Your task to perform on an android device: delete a single message in the gmail app Image 0: 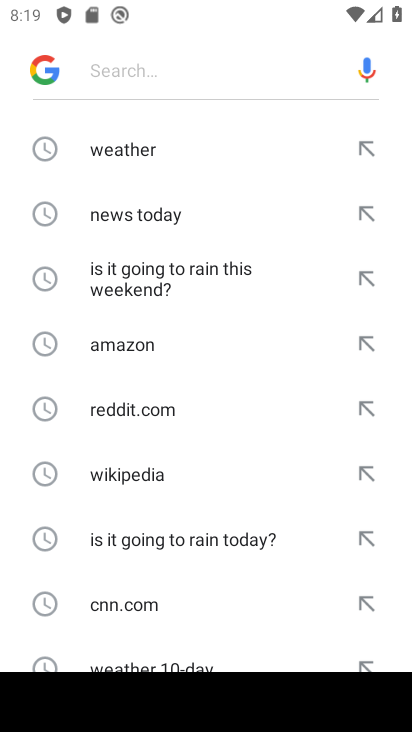
Step 0: press home button
Your task to perform on an android device: delete a single message in the gmail app Image 1: 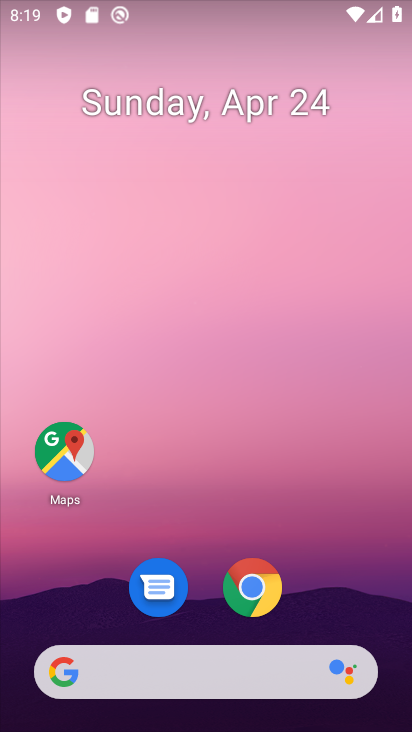
Step 1: drag from (254, 531) to (294, 69)
Your task to perform on an android device: delete a single message in the gmail app Image 2: 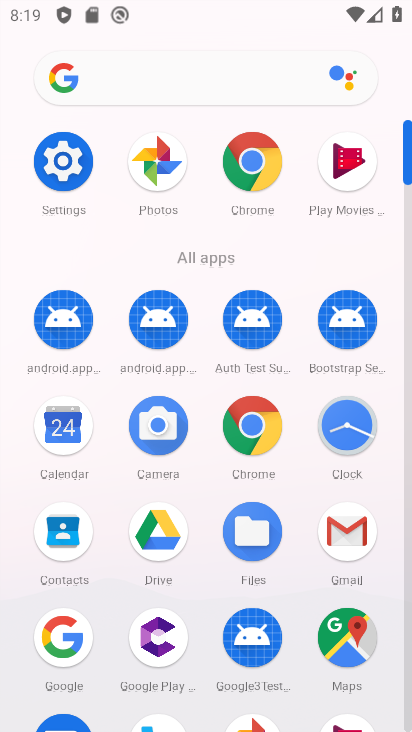
Step 2: click (340, 534)
Your task to perform on an android device: delete a single message in the gmail app Image 3: 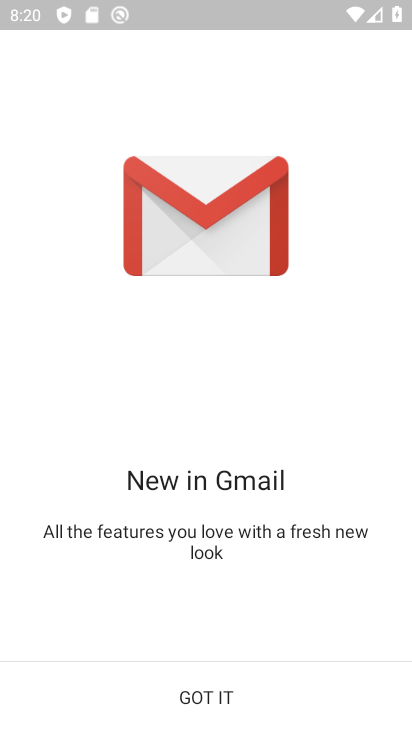
Step 3: click (221, 720)
Your task to perform on an android device: delete a single message in the gmail app Image 4: 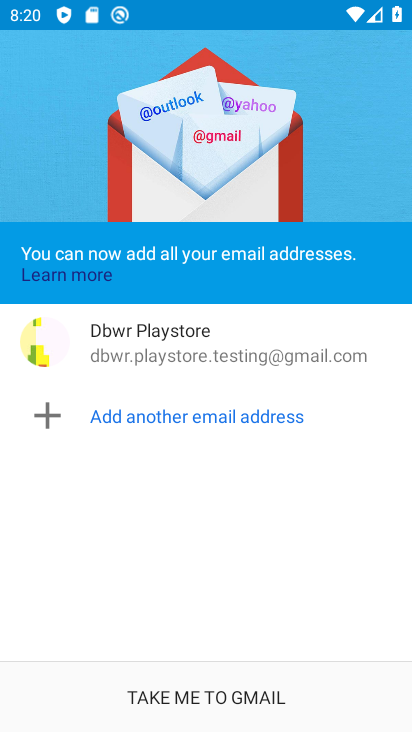
Step 4: click (214, 695)
Your task to perform on an android device: delete a single message in the gmail app Image 5: 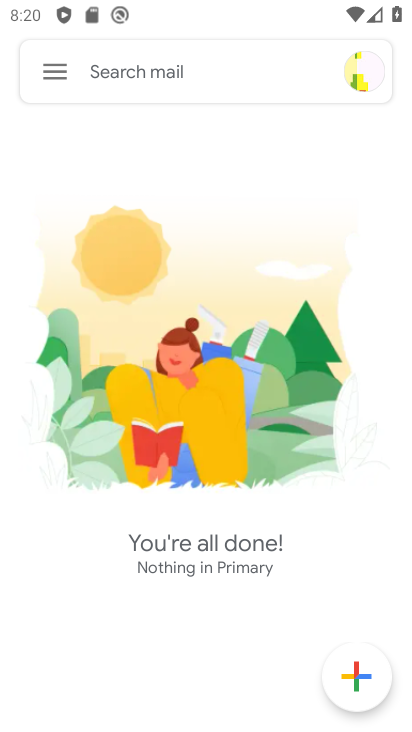
Step 5: click (49, 68)
Your task to perform on an android device: delete a single message in the gmail app Image 6: 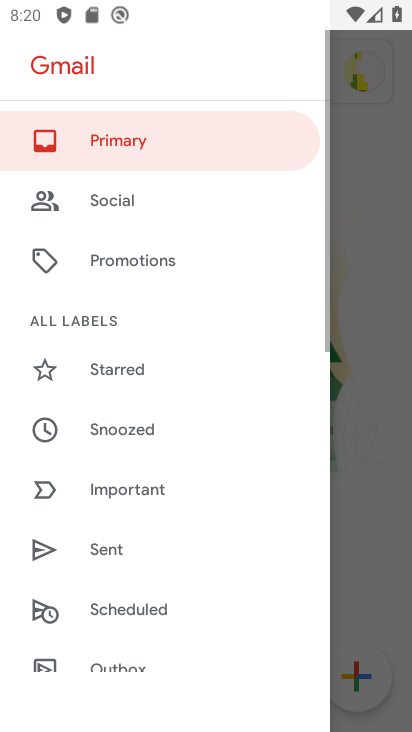
Step 6: drag from (131, 602) to (255, 69)
Your task to perform on an android device: delete a single message in the gmail app Image 7: 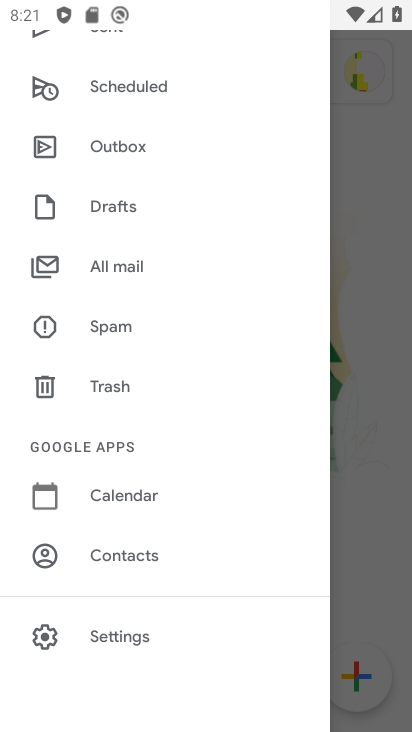
Step 7: click (157, 267)
Your task to perform on an android device: delete a single message in the gmail app Image 8: 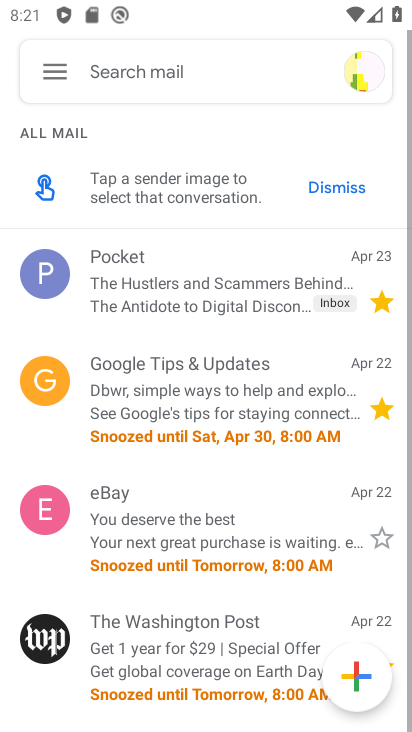
Step 8: click (158, 285)
Your task to perform on an android device: delete a single message in the gmail app Image 9: 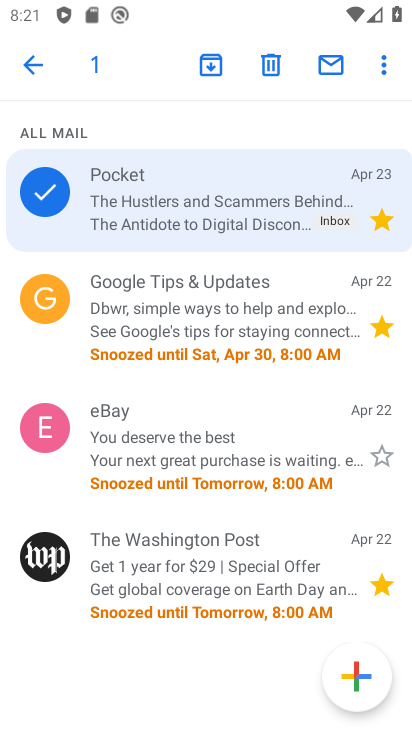
Step 9: click (271, 55)
Your task to perform on an android device: delete a single message in the gmail app Image 10: 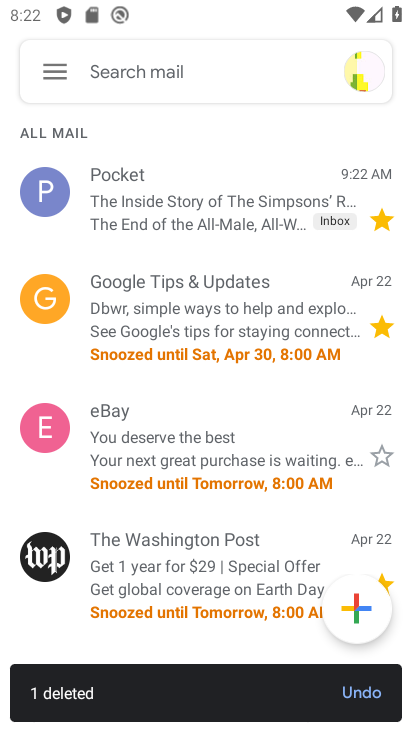
Step 10: task complete